Your task to perform on an android device: turn on the 12-hour format for clock Image 0: 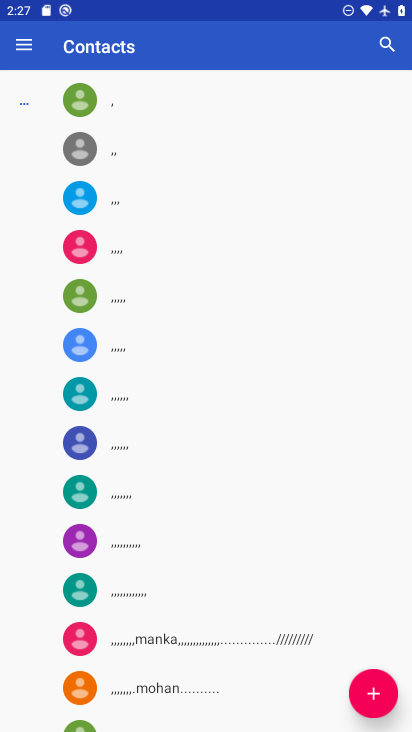
Step 0: press home button
Your task to perform on an android device: turn on the 12-hour format for clock Image 1: 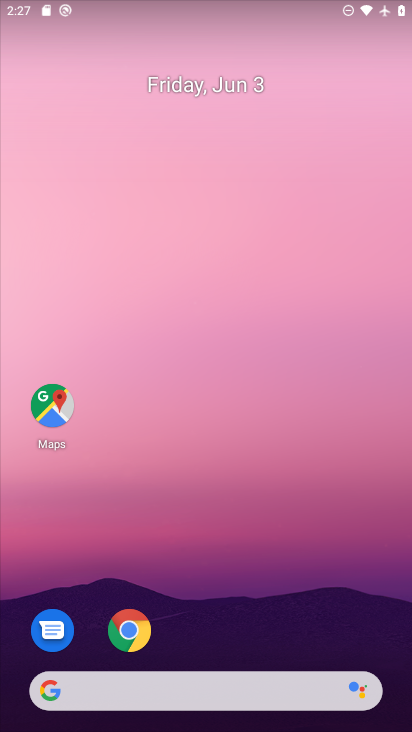
Step 1: drag from (238, 726) to (170, 94)
Your task to perform on an android device: turn on the 12-hour format for clock Image 2: 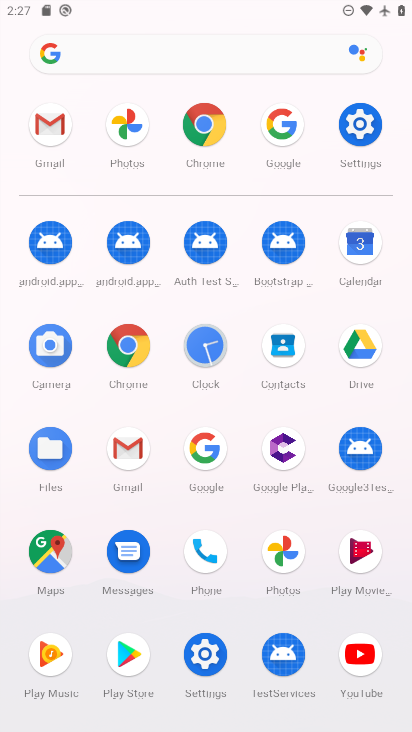
Step 2: click (200, 341)
Your task to perform on an android device: turn on the 12-hour format for clock Image 3: 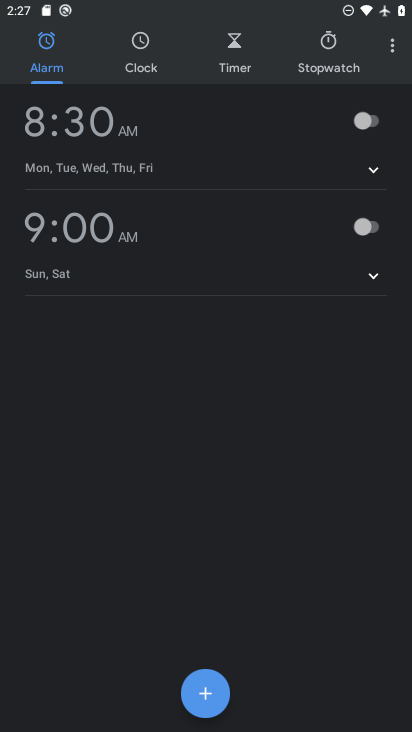
Step 3: click (395, 52)
Your task to perform on an android device: turn on the 12-hour format for clock Image 4: 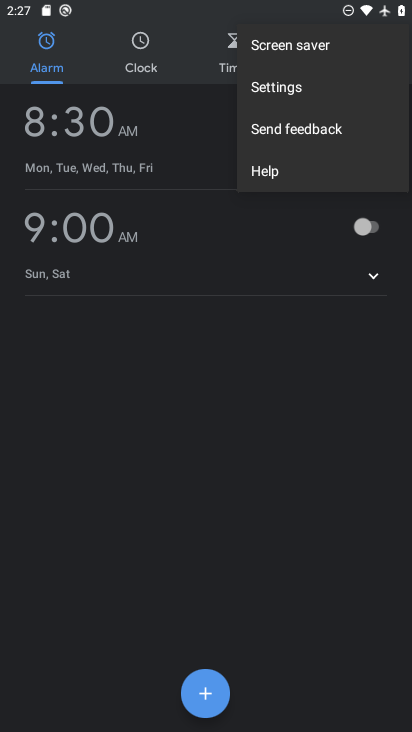
Step 4: click (270, 91)
Your task to perform on an android device: turn on the 12-hour format for clock Image 5: 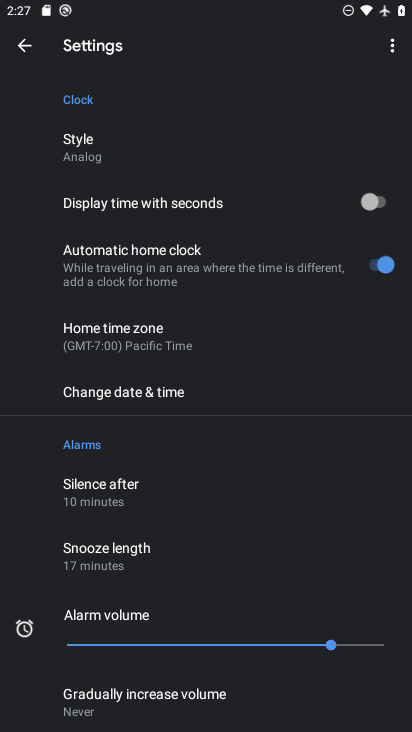
Step 5: click (127, 391)
Your task to perform on an android device: turn on the 12-hour format for clock Image 6: 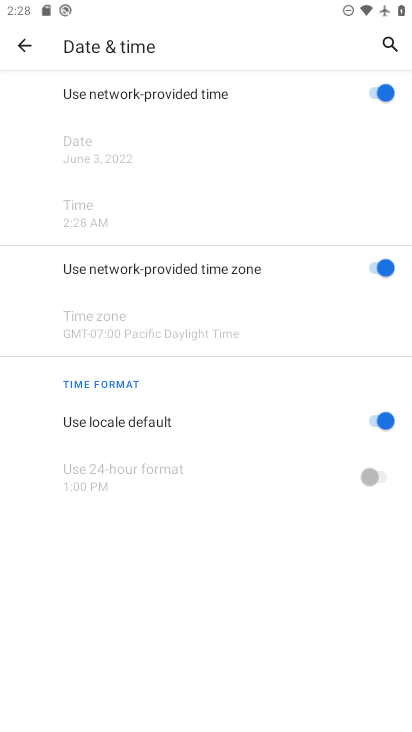
Step 6: task complete